Your task to perform on an android device: clear history in the chrome app Image 0: 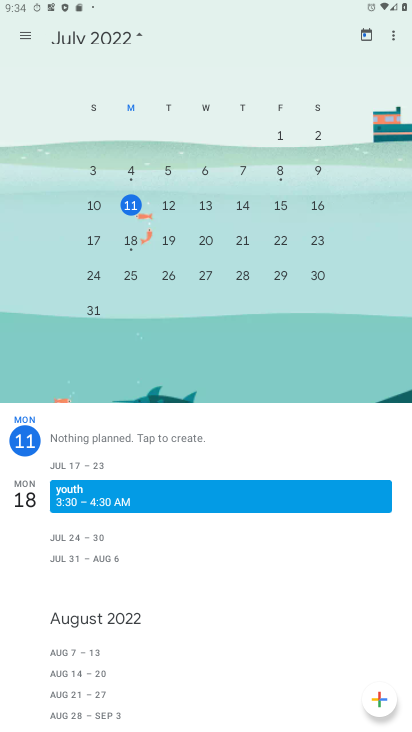
Step 0: press home button
Your task to perform on an android device: clear history in the chrome app Image 1: 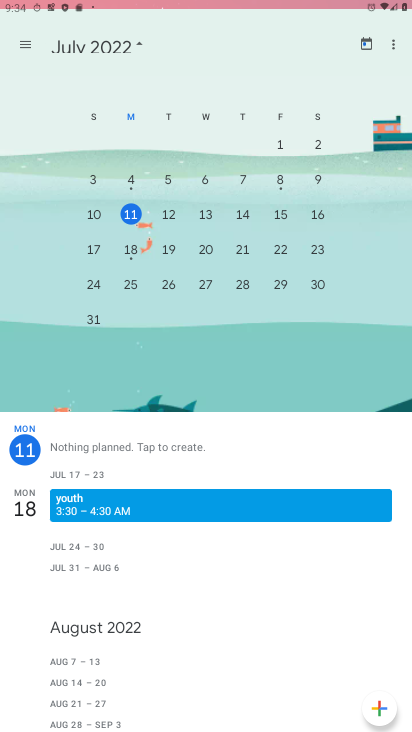
Step 1: drag from (188, 613) to (246, 117)
Your task to perform on an android device: clear history in the chrome app Image 2: 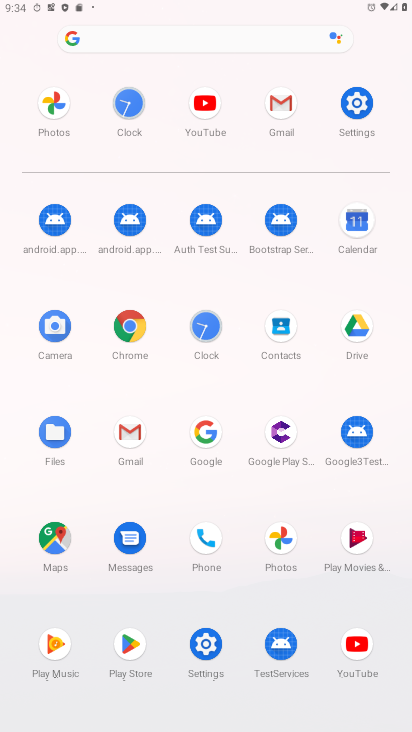
Step 2: click (115, 319)
Your task to perform on an android device: clear history in the chrome app Image 3: 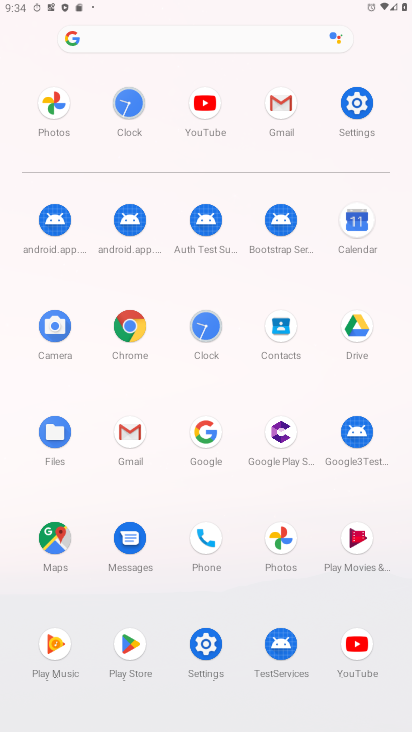
Step 3: click (118, 319)
Your task to perform on an android device: clear history in the chrome app Image 4: 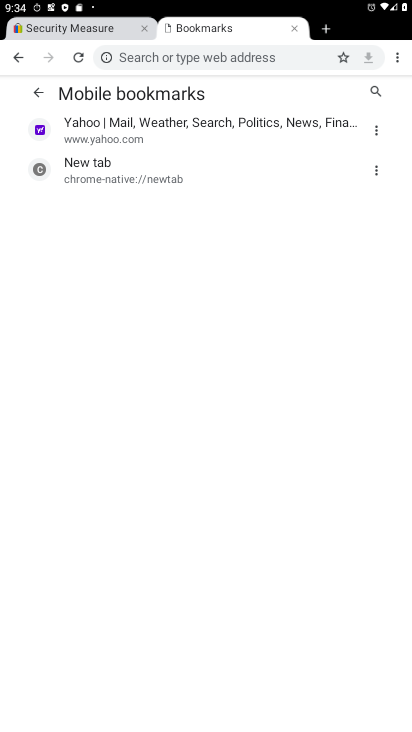
Step 4: drag from (237, 675) to (285, 281)
Your task to perform on an android device: clear history in the chrome app Image 5: 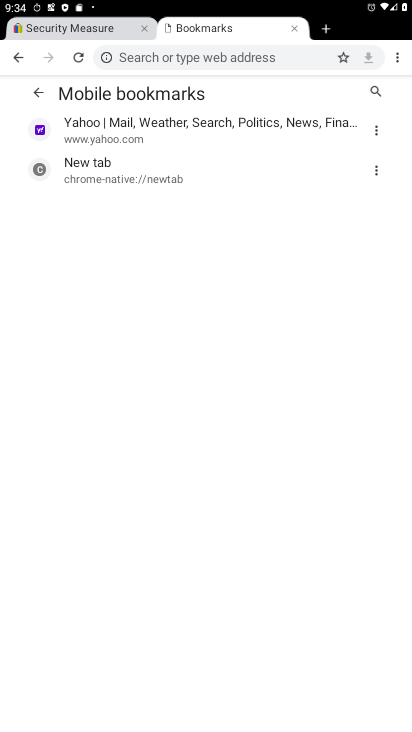
Step 5: click (396, 54)
Your task to perform on an android device: clear history in the chrome app Image 6: 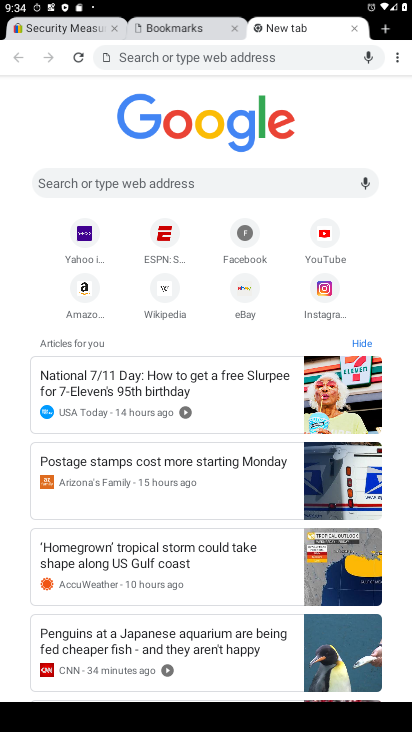
Step 6: click (394, 64)
Your task to perform on an android device: clear history in the chrome app Image 7: 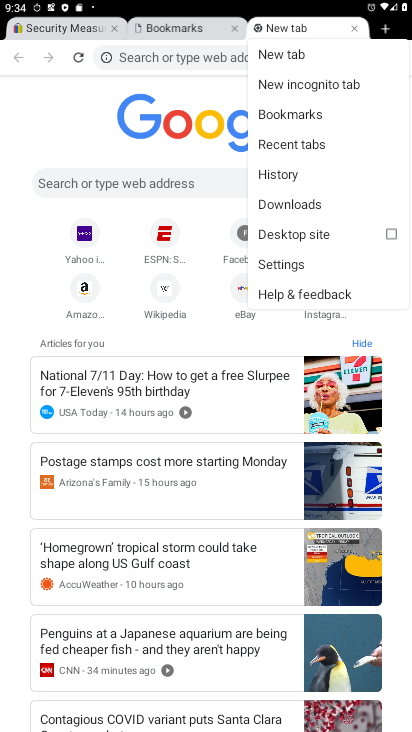
Step 7: click (296, 176)
Your task to perform on an android device: clear history in the chrome app Image 8: 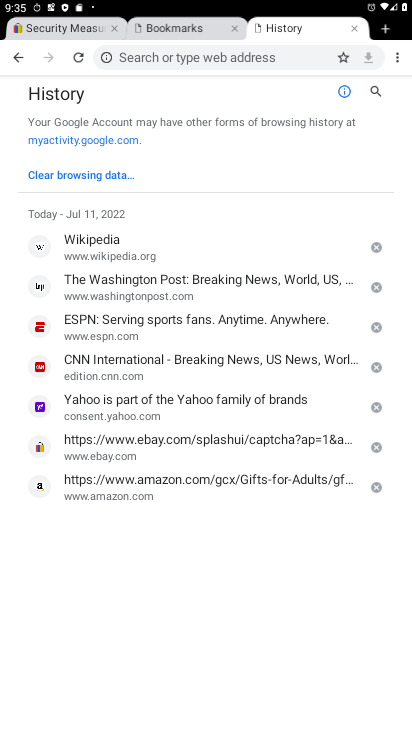
Step 8: click (401, 52)
Your task to perform on an android device: clear history in the chrome app Image 9: 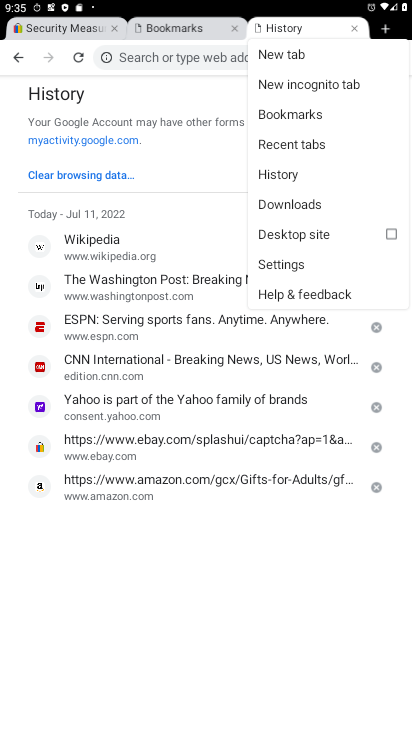
Step 9: click (82, 179)
Your task to perform on an android device: clear history in the chrome app Image 10: 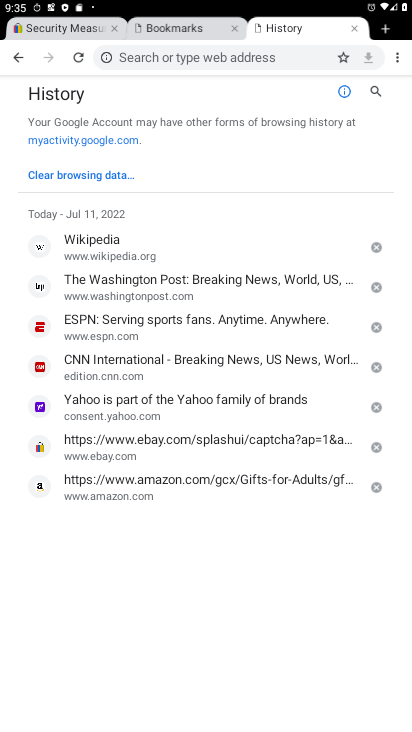
Step 10: click (78, 178)
Your task to perform on an android device: clear history in the chrome app Image 11: 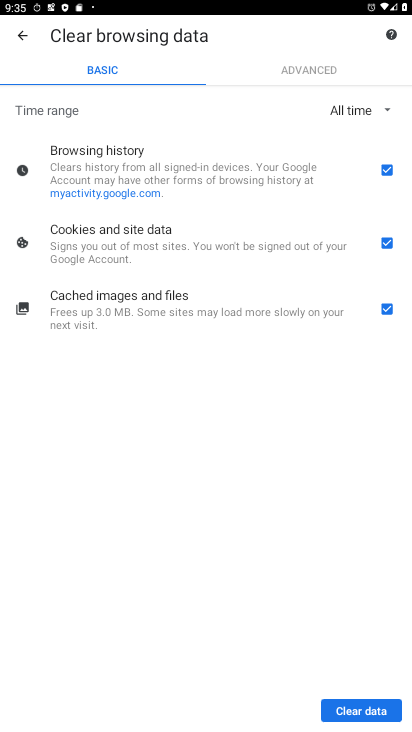
Step 11: click (341, 712)
Your task to perform on an android device: clear history in the chrome app Image 12: 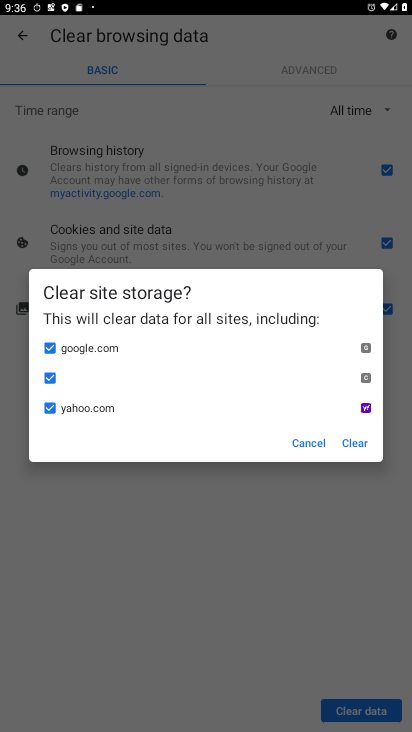
Step 12: click (352, 440)
Your task to perform on an android device: clear history in the chrome app Image 13: 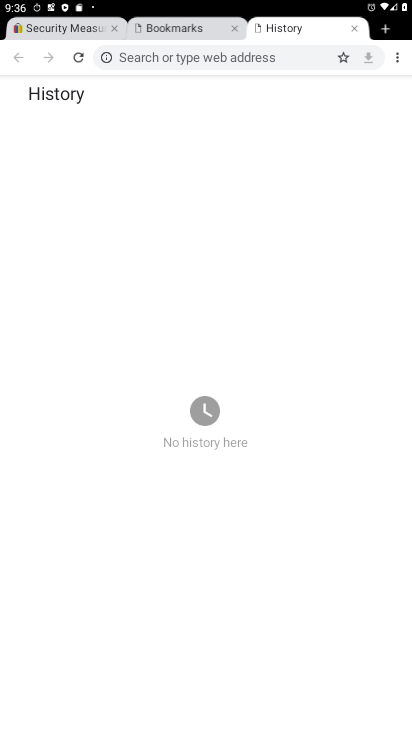
Step 13: task complete